Your task to perform on an android device: Open Wikipedia Image 0: 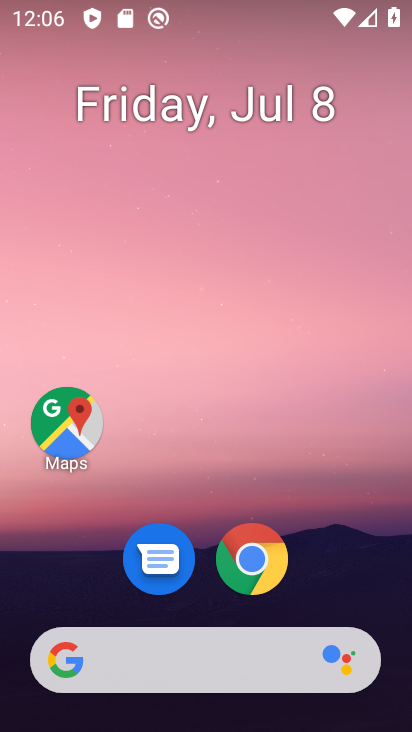
Step 0: click (234, 570)
Your task to perform on an android device: Open Wikipedia Image 1: 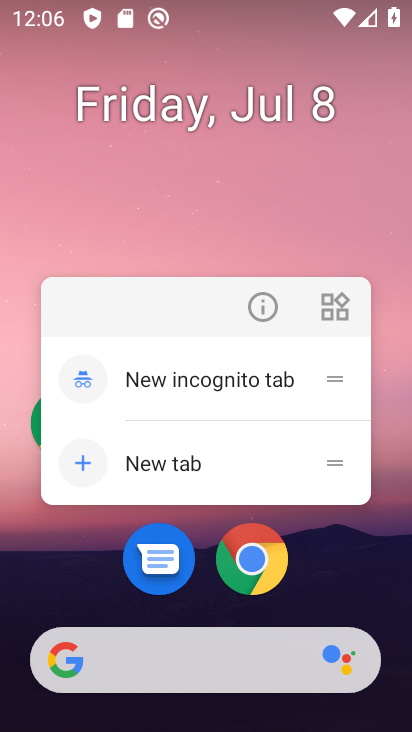
Step 1: click (249, 570)
Your task to perform on an android device: Open Wikipedia Image 2: 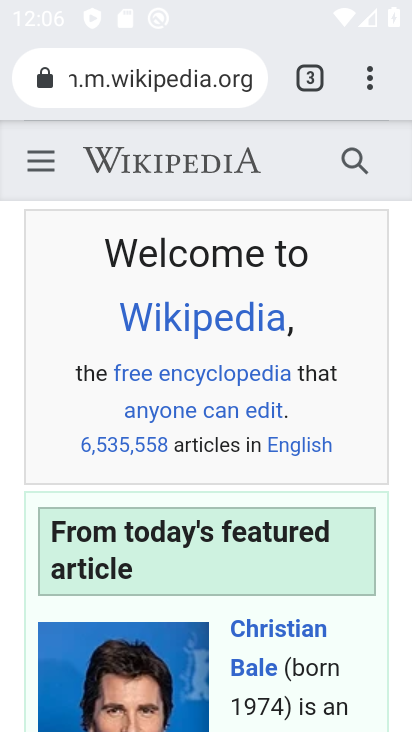
Step 2: task complete